Your task to perform on an android device: Check the weather Image 0: 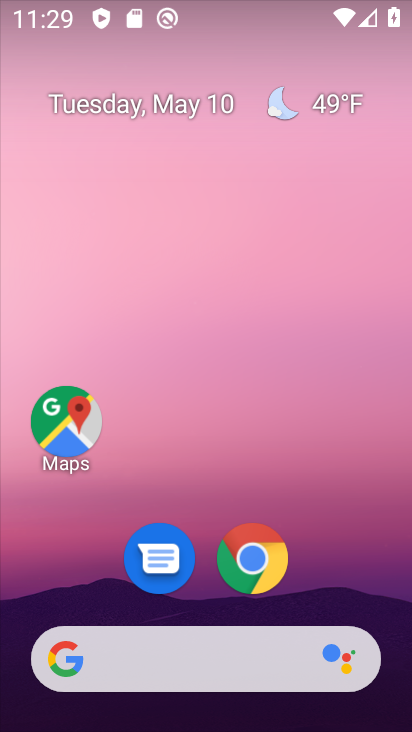
Step 0: press home button
Your task to perform on an android device: Check the weather Image 1: 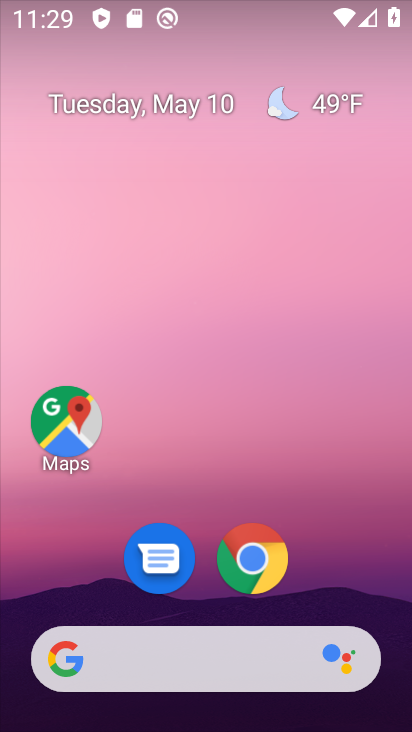
Step 1: press home button
Your task to perform on an android device: Check the weather Image 2: 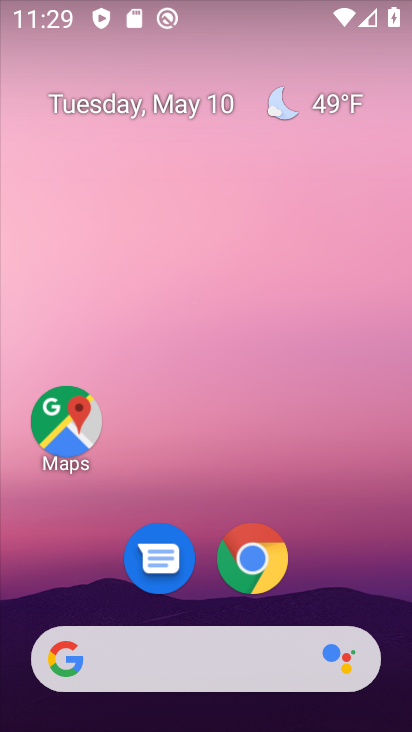
Step 2: click (243, 543)
Your task to perform on an android device: Check the weather Image 3: 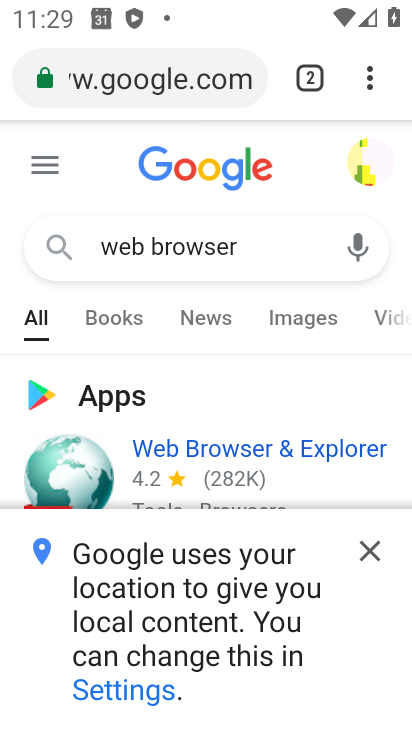
Step 3: task complete